Your task to perform on an android device: What's the news in Venezuela? Image 0: 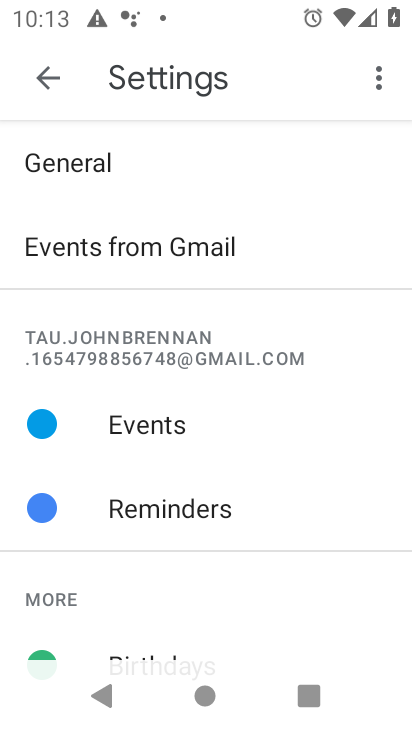
Step 0: press home button
Your task to perform on an android device: What's the news in Venezuela? Image 1: 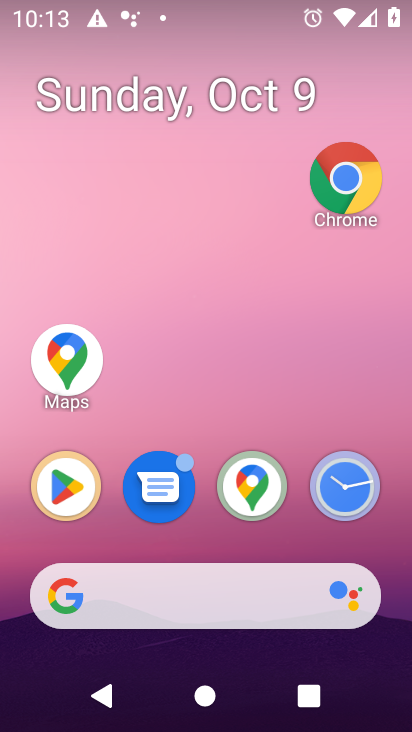
Step 1: drag from (262, 589) to (259, 127)
Your task to perform on an android device: What's the news in Venezuela? Image 2: 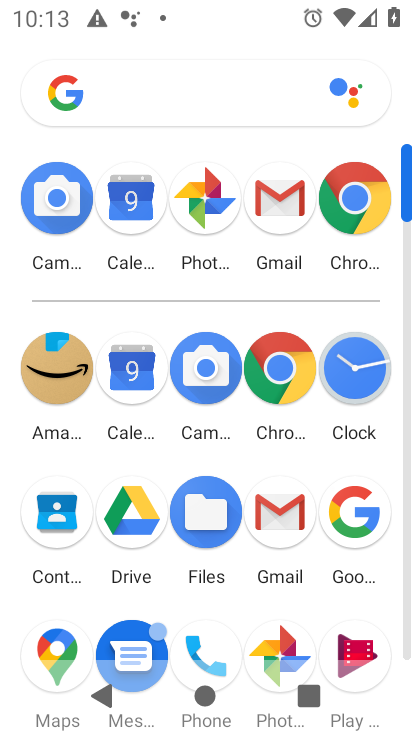
Step 2: drag from (242, 439) to (261, 224)
Your task to perform on an android device: What's the news in Venezuela? Image 3: 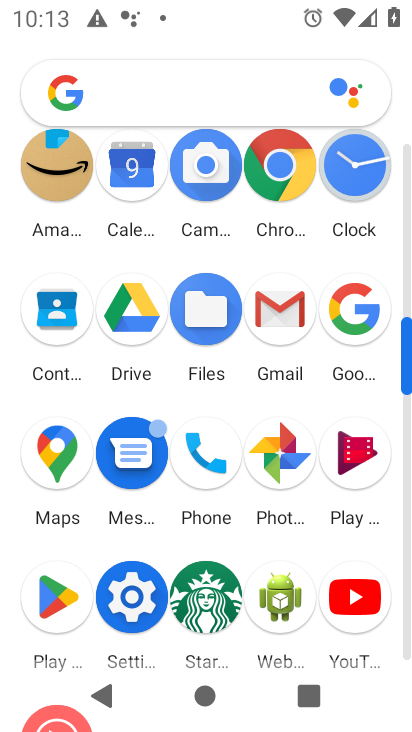
Step 3: drag from (228, 526) to (239, 271)
Your task to perform on an android device: What's the news in Venezuela? Image 4: 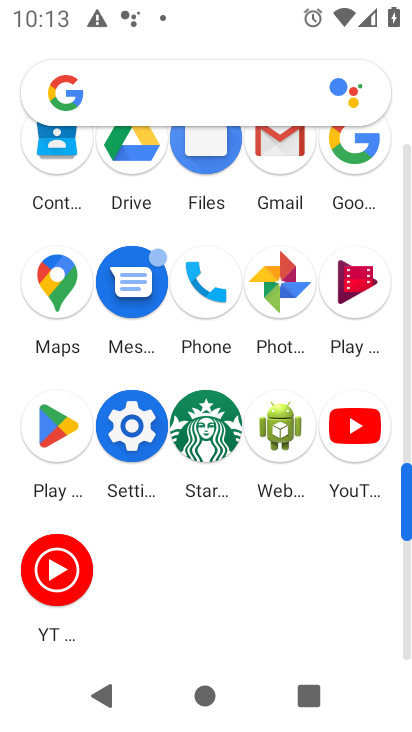
Step 4: click (352, 167)
Your task to perform on an android device: What's the news in Venezuela? Image 5: 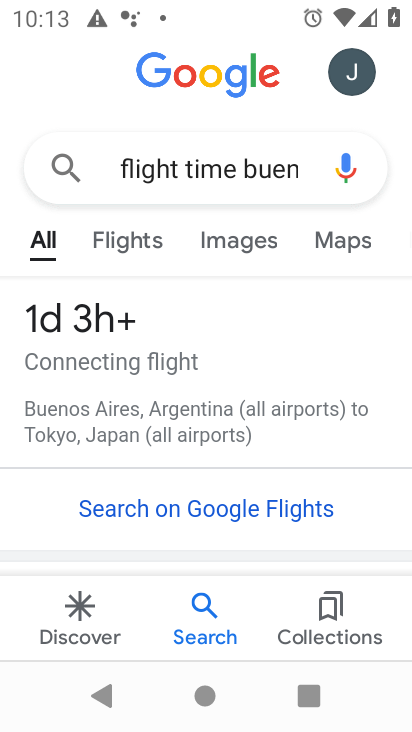
Step 5: click (302, 168)
Your task to perform on an android device: What's the news in Venezuela? Image 6: 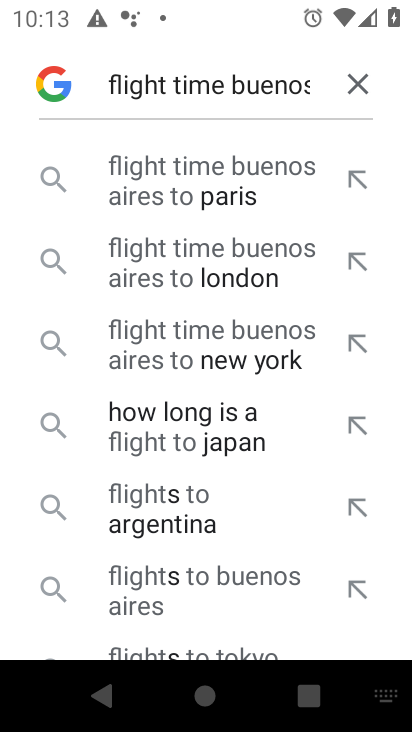
Step 6: click (361, 91)
Your task to perform on an android device: What's the news in Venezuela? Image 7: 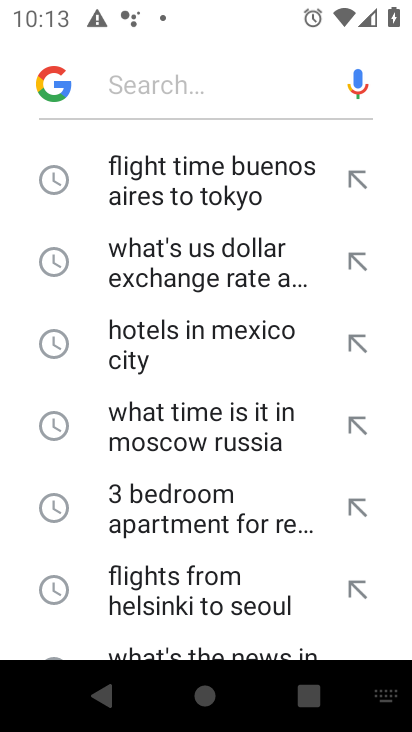
Step 7: type "news in Venezuela"
Your task to perform on an android device: What's the news in Venezuela? Image 8: 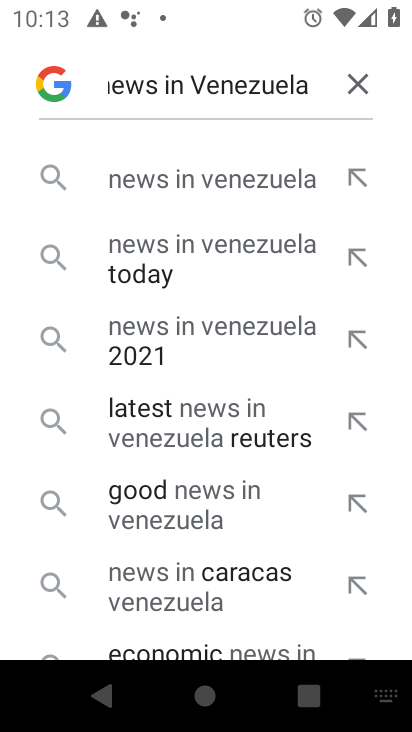
Step 8: click (157, 177)
Your task to perform on an android device: What's the news in Venezuela? Image 9: 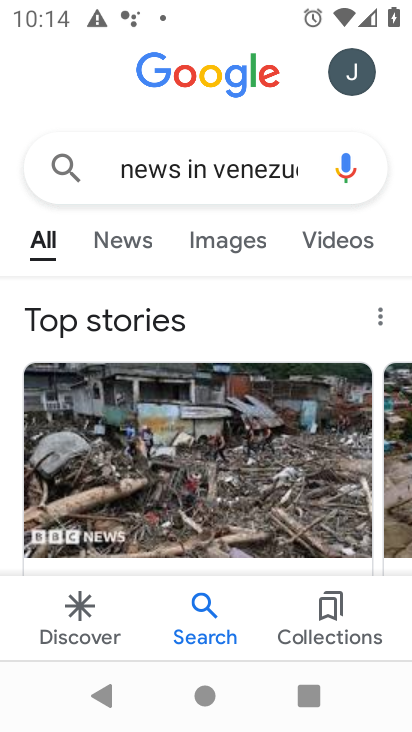
Step 9: click (127, 233)
Your task to perform on an android device: What's the news in Venezuela? Image 10: 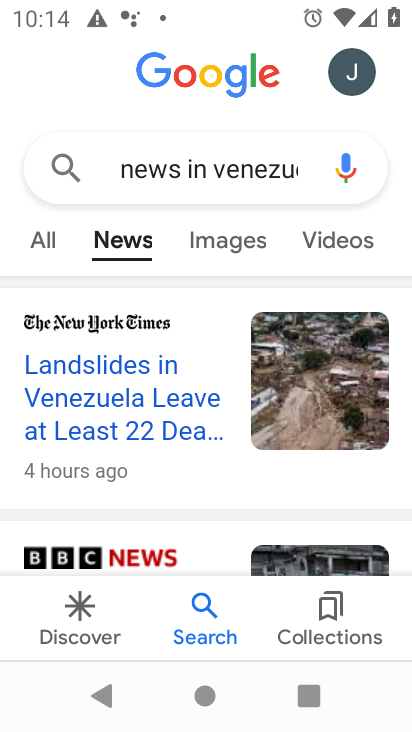
Step 10: task complete